Your task to perform on an android device: check battery use Image 0: 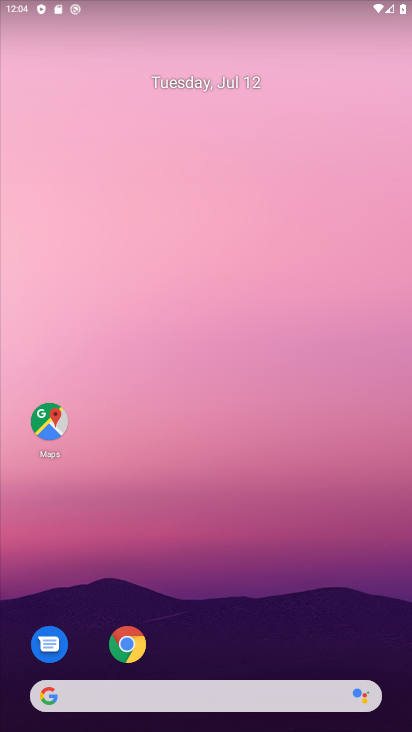
Step 0: drag from (50, 713) to (301, 115)
Your task to perform on an android device: check battery use Image 1: 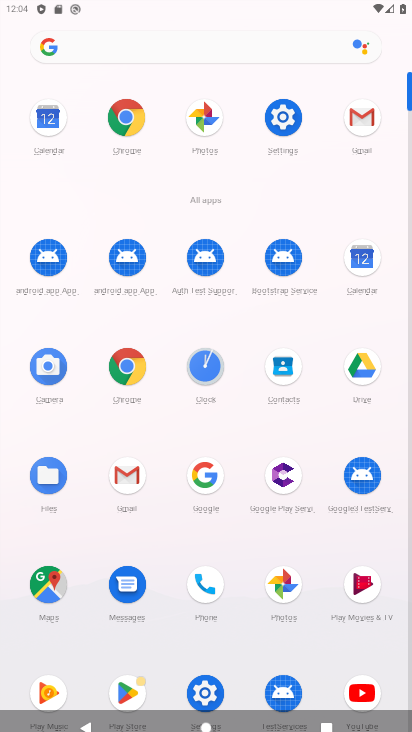
Step 1: click (207, 692)
Your task to perform on an android device: check battery use Image 2: 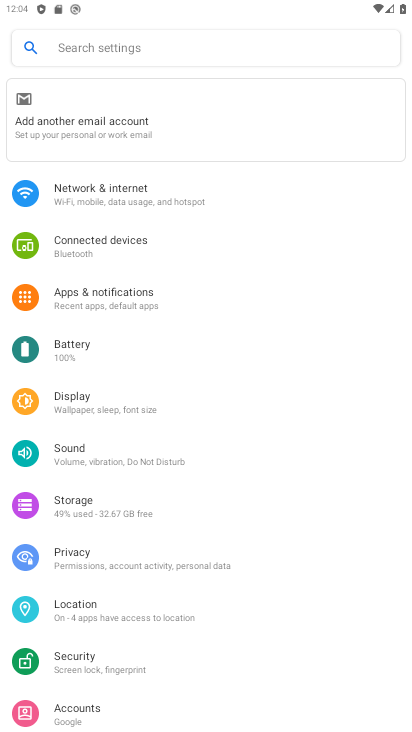
Step 2: click (104, 345)
Your task to perform on an android device: check battery use Image 3: 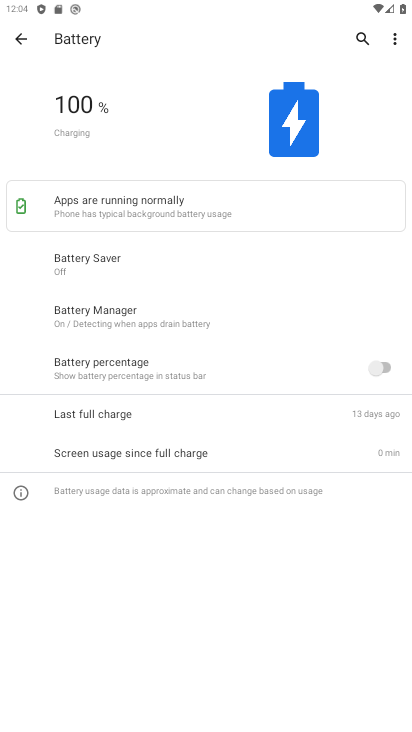
Step 3: task complete